Your task to perform on an android device: open app "LiveIn - Share Your Moment" (install if not already installed) Image 0: 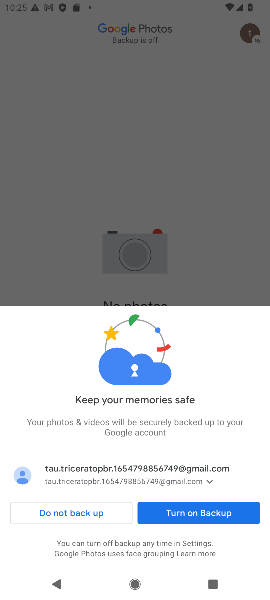
Step 0: press home button
Your task to perform on an android device: open app "LiveIn - Share Your Moment" (install if not already installed) Image 1: 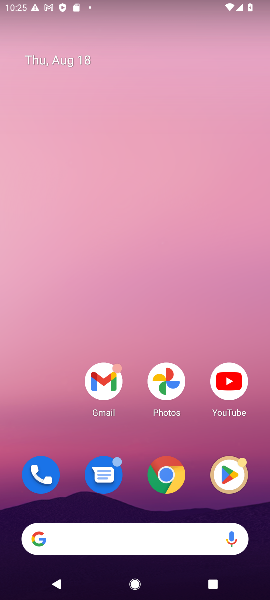
Step 1: drag from (126, 509) to (243, 573)
Your task to perform on an android device: open app "LiveIn - Share Your Moment" (install if not already installed) Image 2: 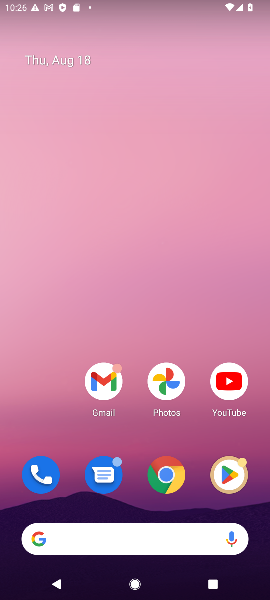
Step 2: drag from (148, 507) to (107, 93)
Your task to perform on an android device: open app "LiveIn - Share Your Moment" (install if not already installed) Image 3: 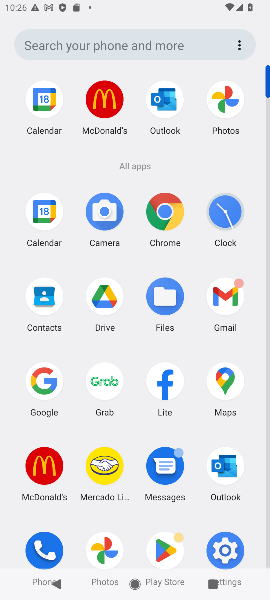
Step 3: click (171, 536)
Your task to perform on an android device: open app "LiveIn - Share Your Moment" (install if not already installed) Image 4: 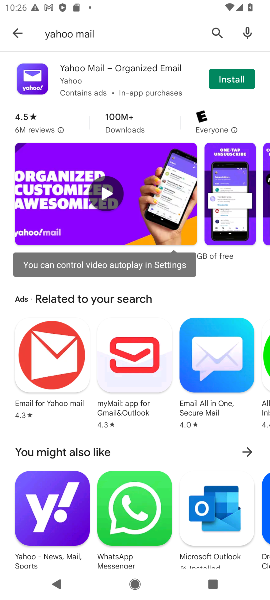
Step 4: click (24, 33)
Your task to perform on an android device: open app "LiveIn - Share Your Moment" (install if not already installed) Image 5: 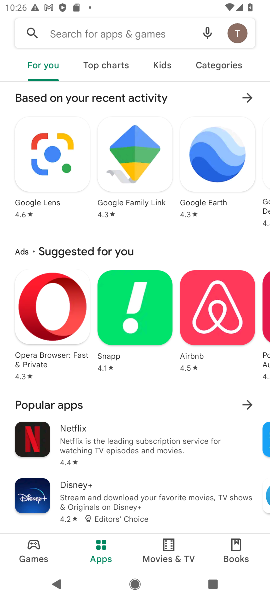
Step 5: click (61, 34)
Your task to perform on an android device: open app "LiveIn - Share Your Moment" (install if not already installed) Image 6: 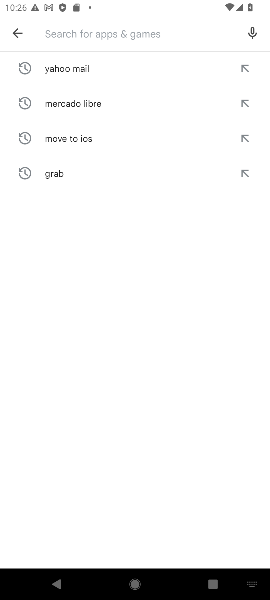
Step 6: type "LiveIn"
Your task to perform on an android device: open app "LiveIn - Share Your Moment" (install if not already installed) Image 7: 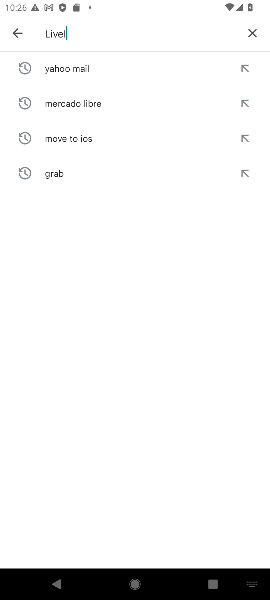
Step 7: type ""
Your task to perform on an android device: open app "LiveIn - Share Your Moment" (install if not already installed) Image 8: 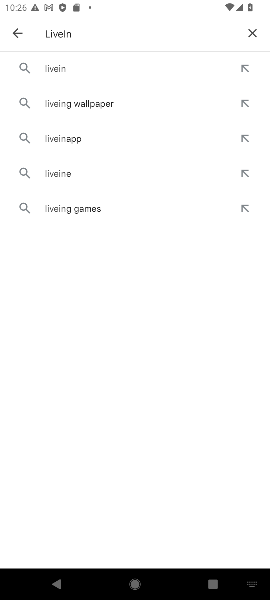
Step 8: click (49, 69)
Your task to perform on an android device: open app "LiveIn - Share Your Moment" (install if not already installed) Image 9: 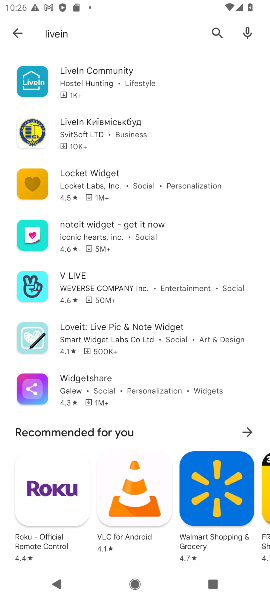
Step 9: click (209, 32)
Your task to perform on an android device: open app "LiveIn - Share Your Moment" (install if not already installed) Image 10: 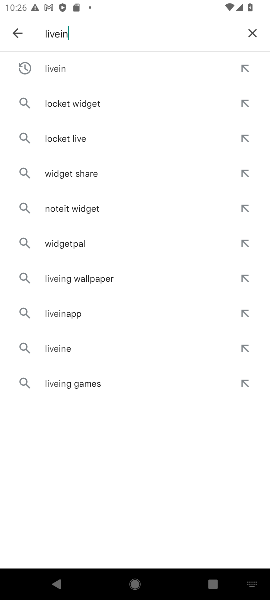
Step 10: type "- Share Your Momen"
Your task to perform on an android device: open app "LiveIn - Share Your Moment" (install if not already installed) Image 11: 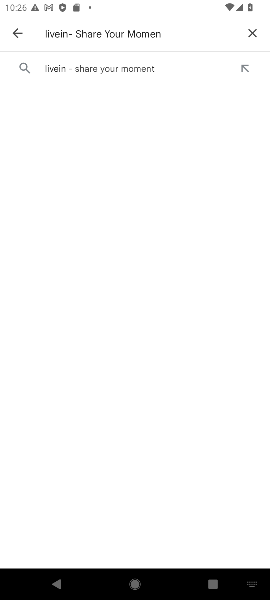
Step 11: click (110, 74)
Your task to perform on an android device: open app "LiveIn - Share Your Moment" (install if not already installed) Image 12: 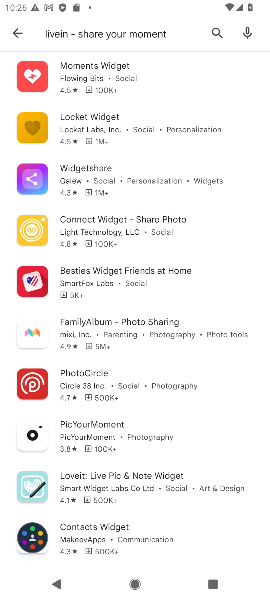
Step 12: task complete